Your task to perform on an android device: clear all cookies in the chrome app Image 0: 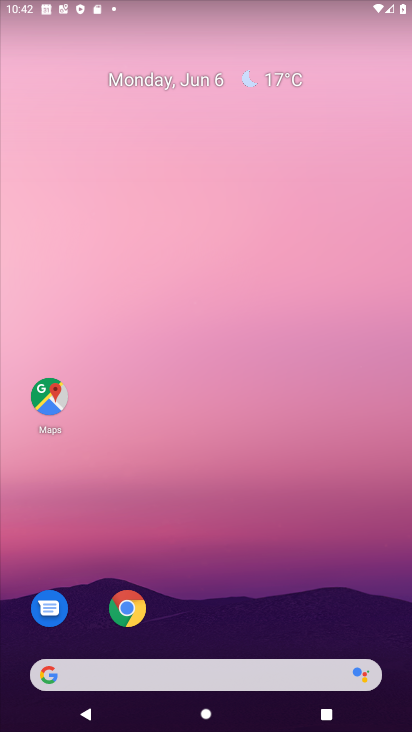
Step 0: click (123, 612)
Your task to perform on an android device: clear all cookies in the chrome app Image 1: 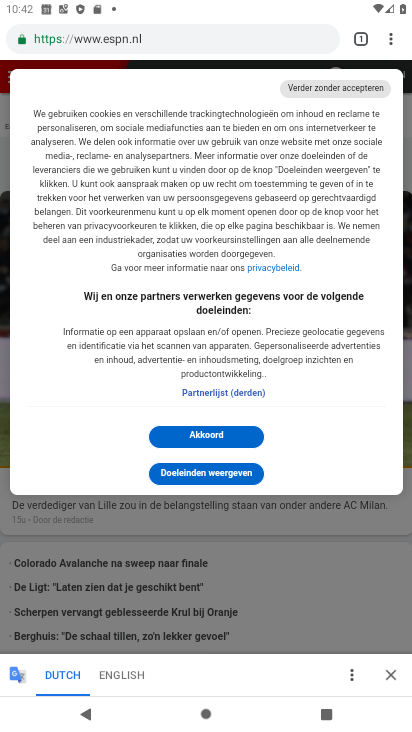
Step 1: click (395, 44)
Your task to perform on an android device: clear all cookies in the chrome app Image 2: 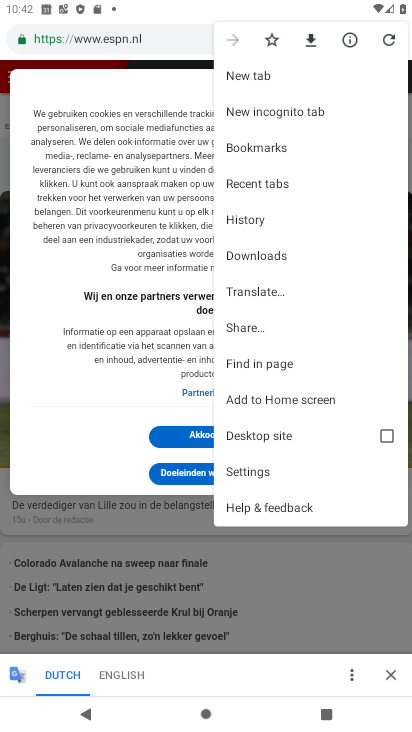
Step 2: click (269, 223)
Your task to perform on an android device: clear all cookies in the chrome app Image 3: 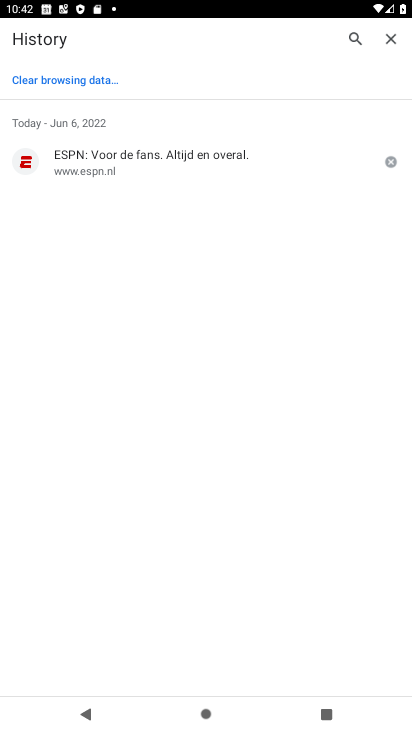
Step 3: click (89, 83)
Your task to perform on an android device: clear all cookies in the chrome app Image 4: 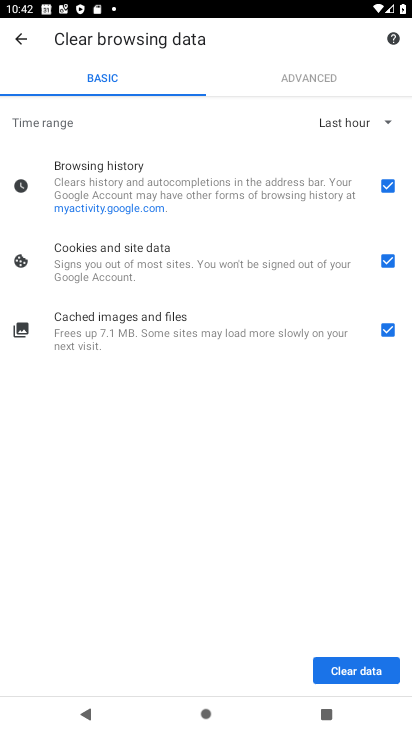
Step 4: click (387, 333)
Your task to perform on an android device: clear all cookies in the chrome app Image 5: 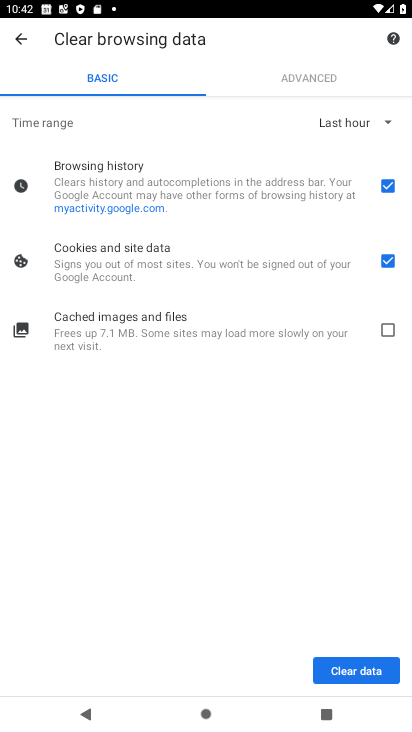
Step 5: click (387, 187)
Your task to perform on an android device: clear all cookies in the chrome app Image 6: 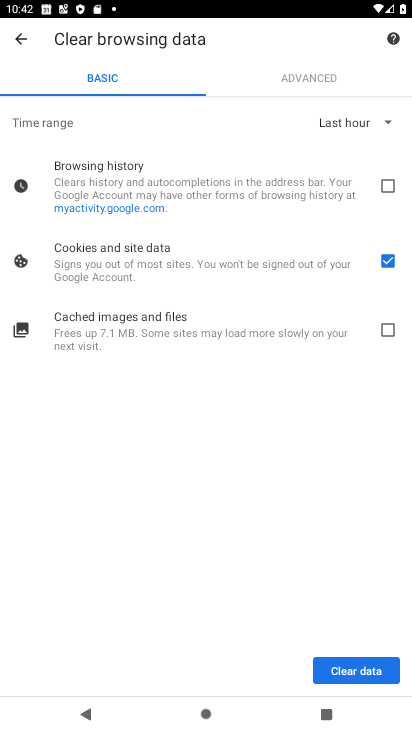
Step 6: click (367, 677)
Your task to perform on an android device: clear all cookies in the chrome app Image 7: 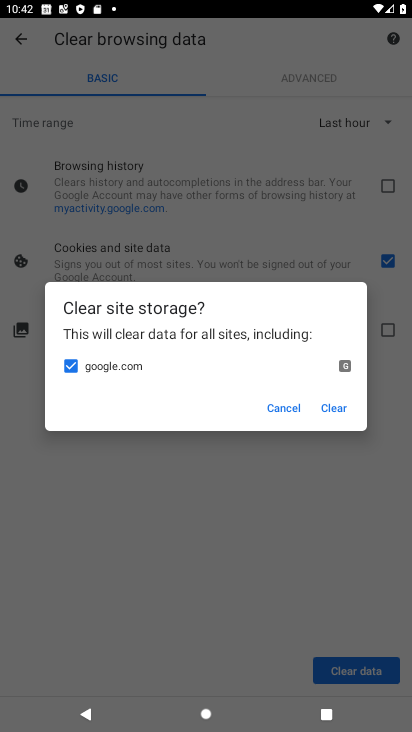
Step 7: click (335, 406)
Your task to perform on an android device: clear all cookies in the chrome app Image 8: 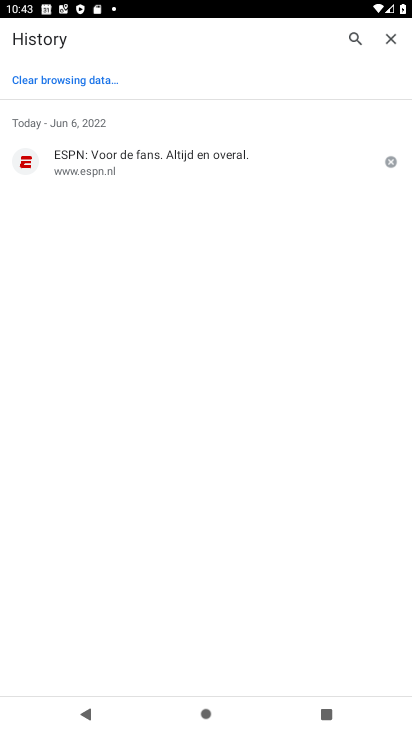
Step 8: task complete